Your task to perform on an android device: Go to ESPN.com Image 0: 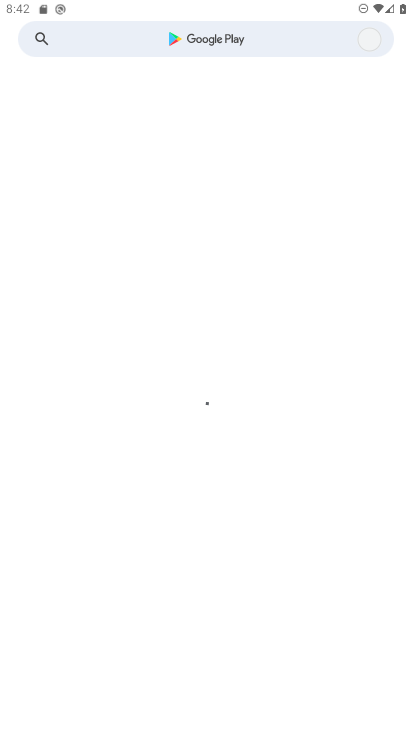
Step 0: press home button
Your task to perform on an android device: Go to ESPN.com Image 1: 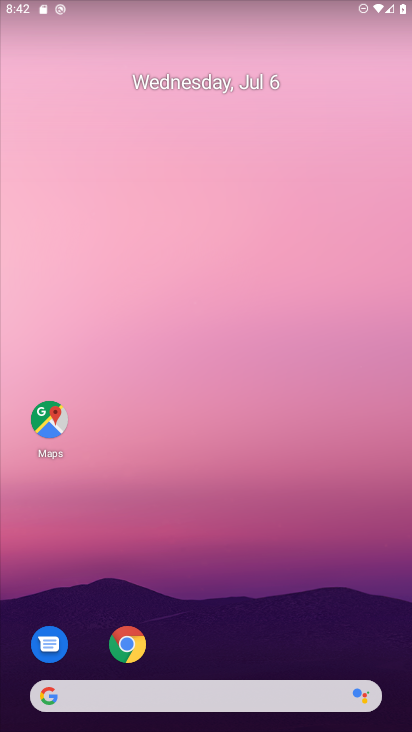
Step 1: drag from (243, 664) to (155, 117)
Your task to perform on an android device: Go to ESPN.com Image 2: 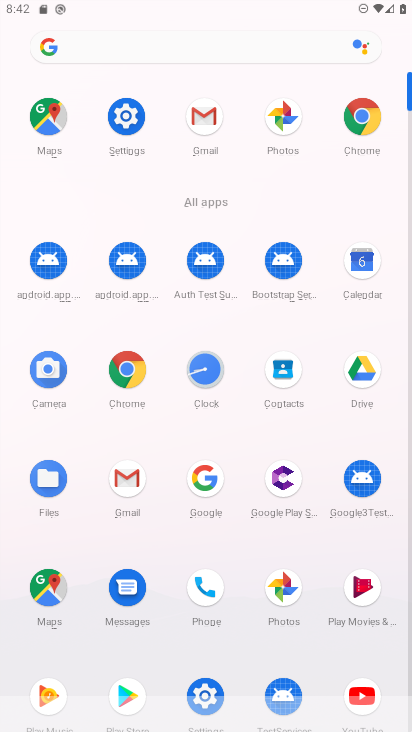
Step 2: click (140, 374)
Your task to perform on an android device: Go to ESPN.com Image 3: 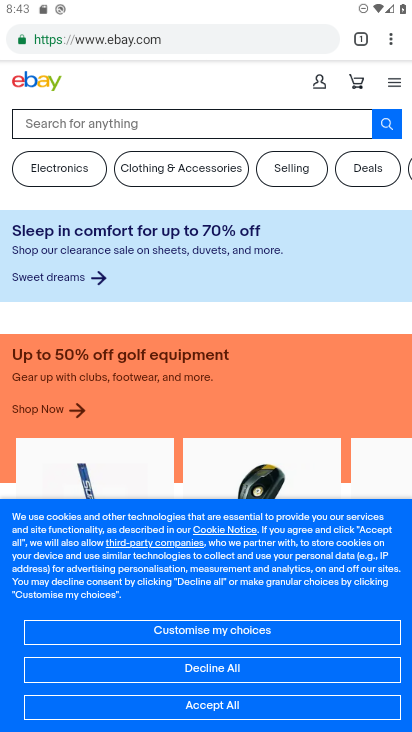
Step 3: click (365, 33)
Your task to perform on an android device: Go to ESPN.com Image 4: 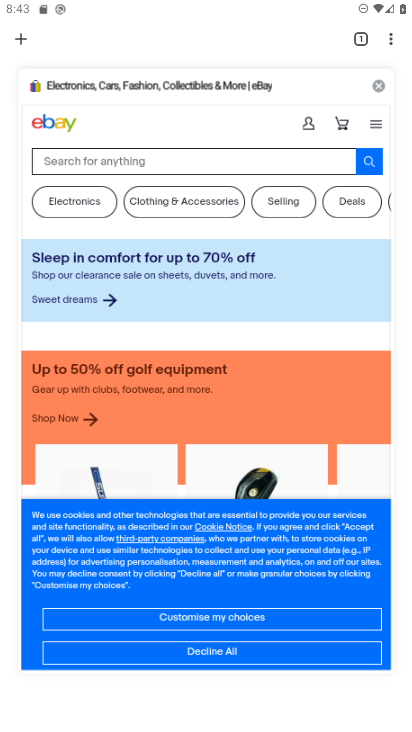
Step 4: click (32, 38)
Your task to perform on an android device: Go to ESPN.com Image 5: 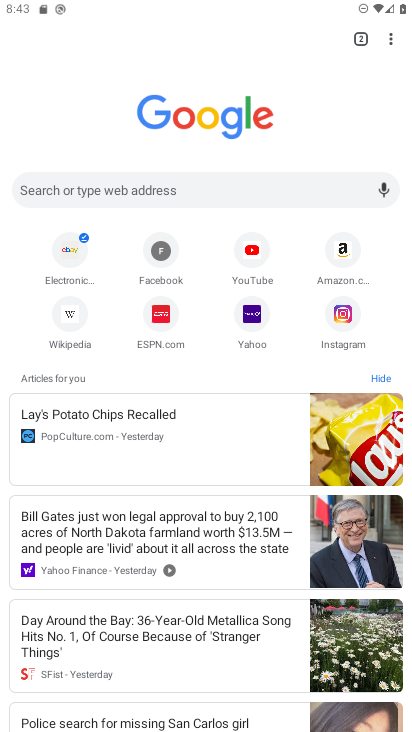
Step 5: click (158, 315)
Your task to perform on an android device: Go to ESPN.com Image 6: 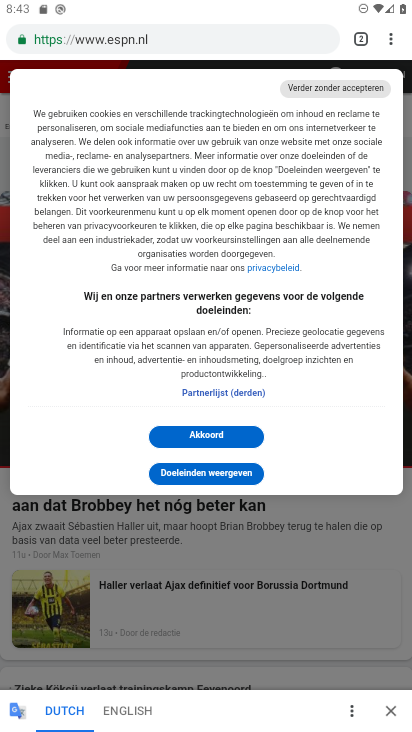
Step 6: click (176, 427)
Your task to perform on an android device: Go to ESPN.com Image 7: 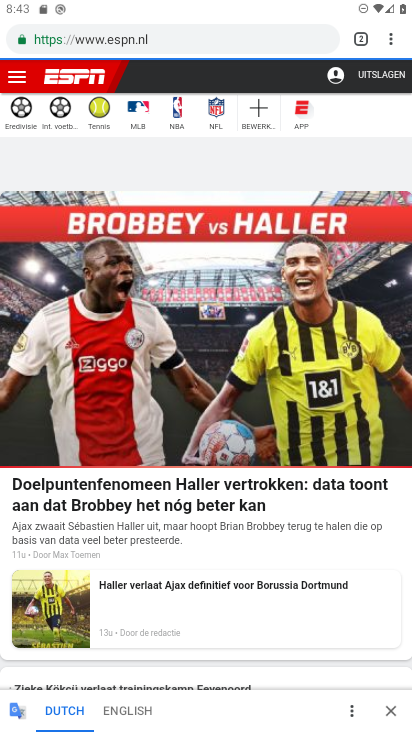
Step 7: task complete